Your task to perform on an android device: Open Yahoo.com Image 0: 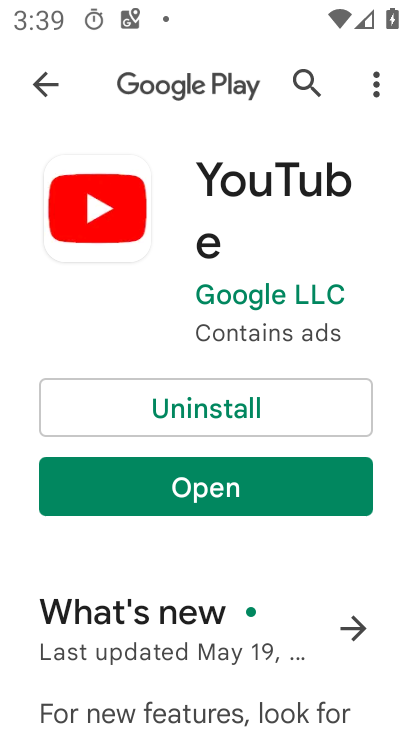
Step 0: press home button
Your task to perform on an android device: Open Yahoo.com Image 1: 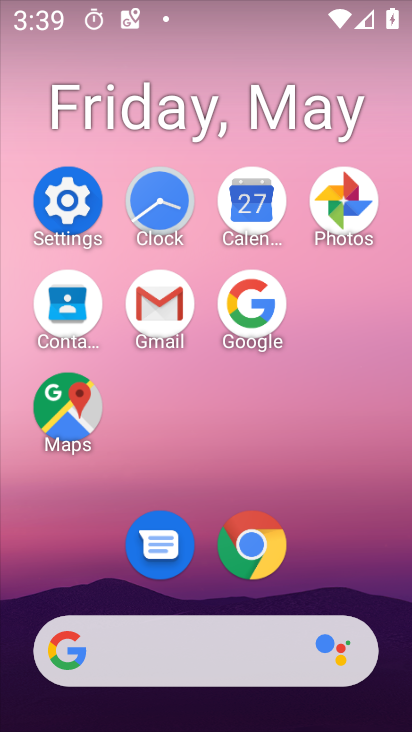
Step 1: click (263, 537)
Your task to perform on an android device: Open Yahoo.com Image 2: 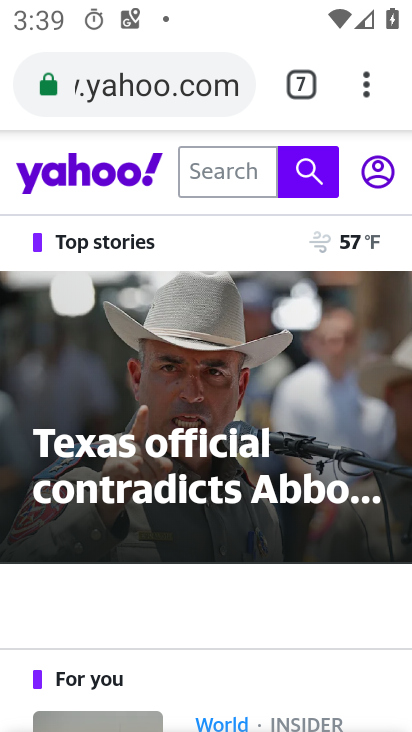
Step 2: task complete